Your task to perform on an android device: Open the phone app and click the voicemail tab. Image 0: 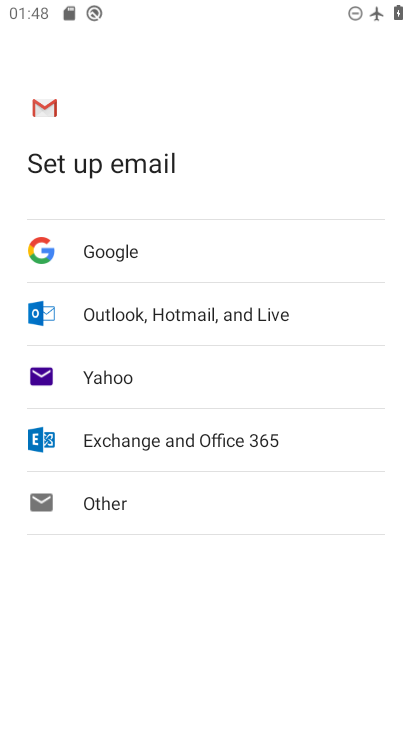
Step 0: press home button
Your task to perform on an android device: Open the phone app and click the voicemail tab. Image 1: 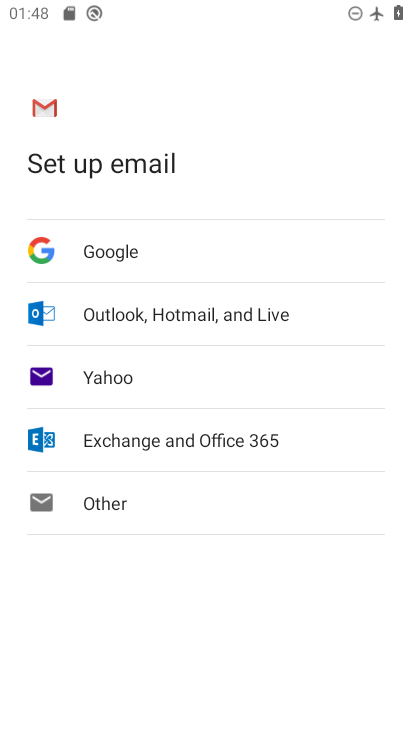
Step 1: press home button
Your task to perform on an android device: Open the phone app and click the voicemail tab. Image 2: 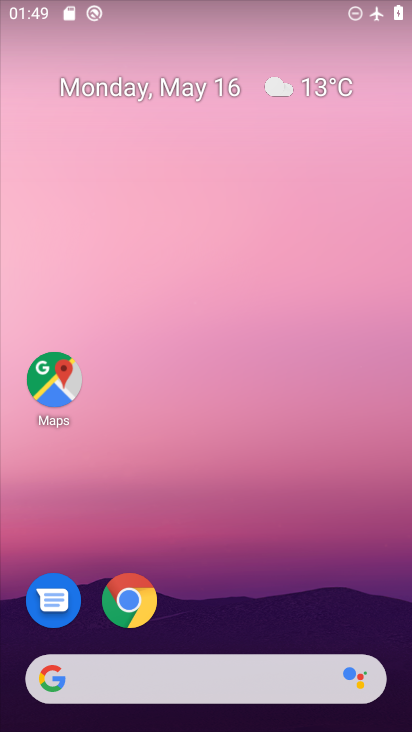
Step 2: drag from (219, 637) to (268, 41)
Your task to perform on an android device: Open the phone app and click the voicemail tab. Image 3: 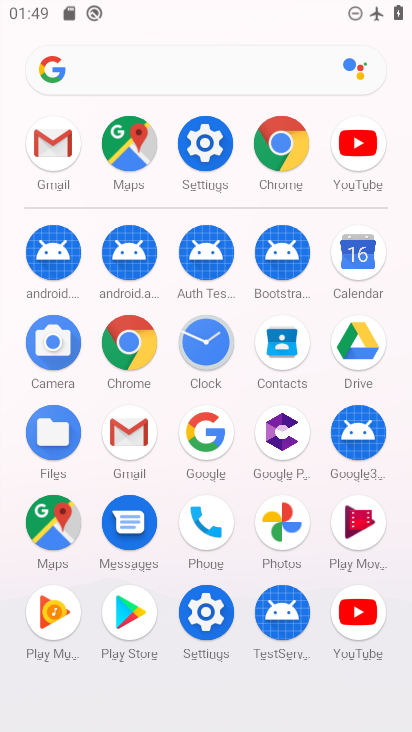
Step 3: click (210, 519)
Your task to perform on an android device: Open the phone app and click the voicemail tab. Image 4: 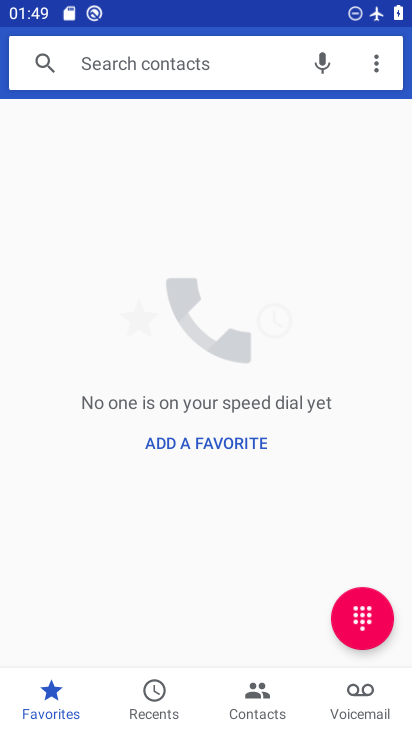
Step 4: click (361, 691)
Your task to perform on an android device: Open the phone app and click the voicemail tab. Image 5: 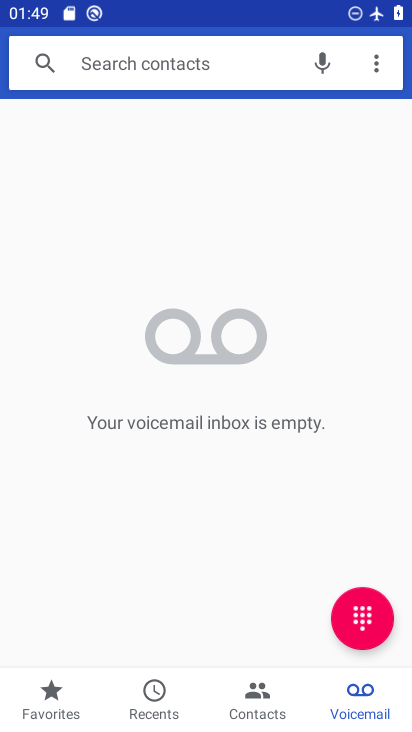
Step 5: task complete